Your task to perform on an android device: toggle priority inbox in the gmail app Image 0: 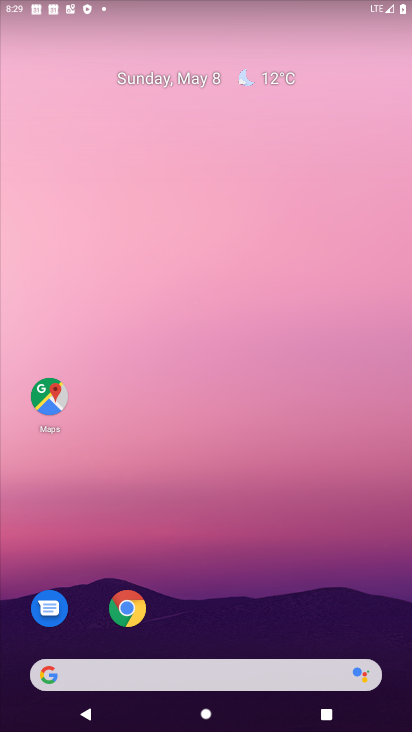
Step 0: drag from (295, 609) to (295, 176)
Your task to perform on an android device: toggle priority inbox in the gmail app Image 1: 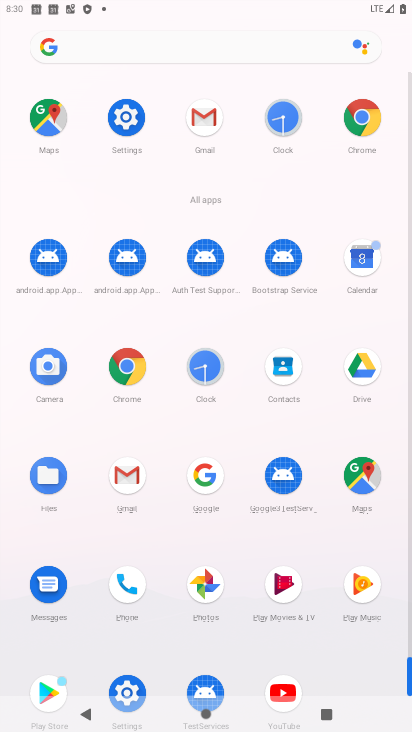
Step 1: click (134, 475)
Your task to perform on an android device: toggle priority inbox in the gmail app Image 2: 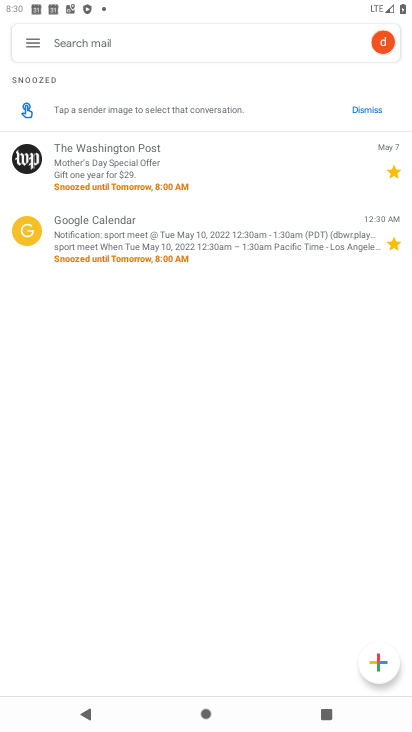
Step 2: click (28, 50)
Your task to perform on an android device: toggle priority inbox in the gmail app Image 3: 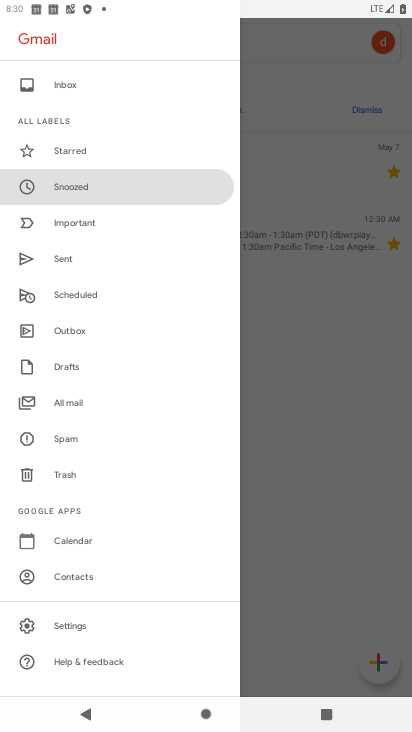
Step 3: drag from (168, 503) to (159, 162)
Your task to perform on an android device: toggle priority inbox in the gmail app Image 4: 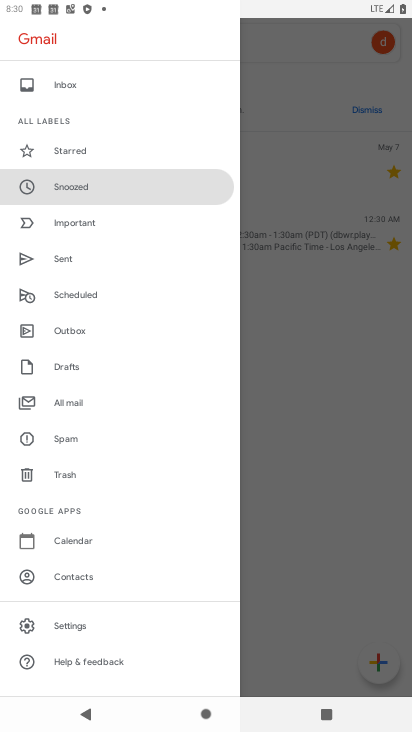
Step 4: click (81, 619)
Your task to perform on an android device: toggle priority inbox in the gmail app Image 5: 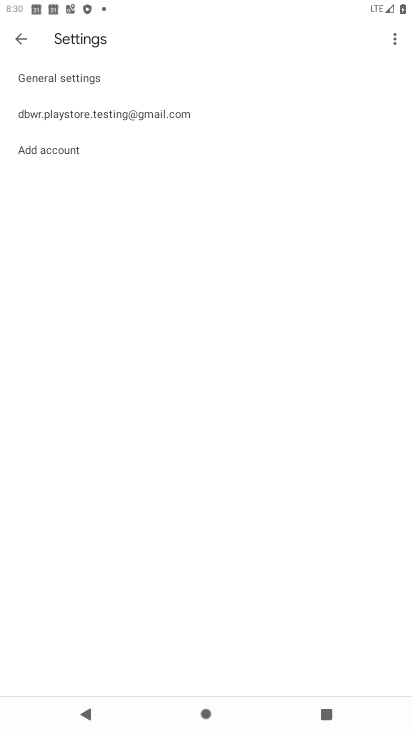
Step 5: click (100, 112)
Your task to perform on an android device: toggle priority inbox in the gmail app Image 6: 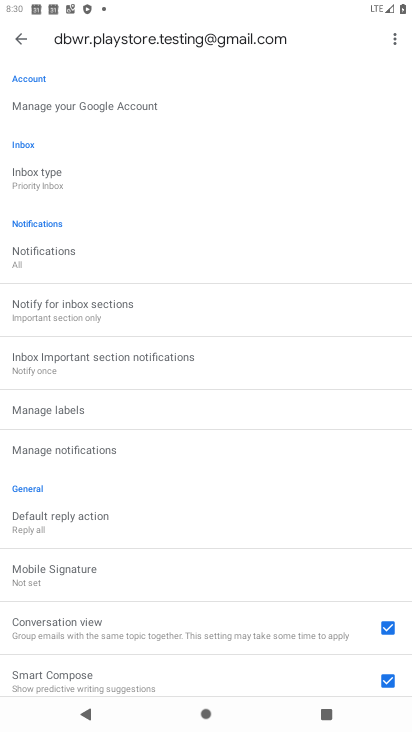
Step 6: click (46, 182)
Your task to perform on an android device: toggle priority inbox in the gmail app Image 7: 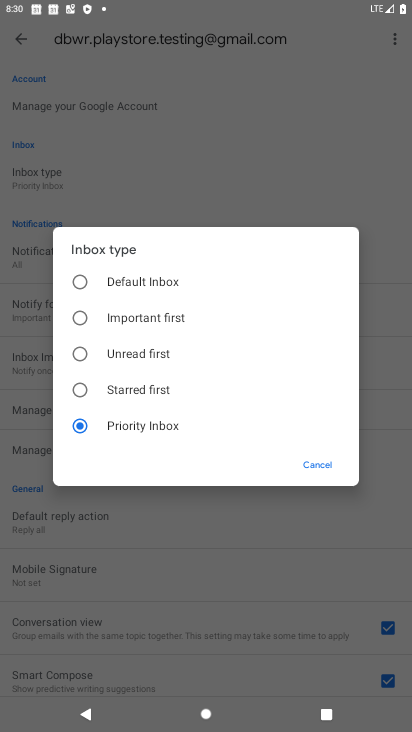
Step 7: click (113, 279)
Your task to perform on an android device: toggle priority inbox in the gmail app Image 8: 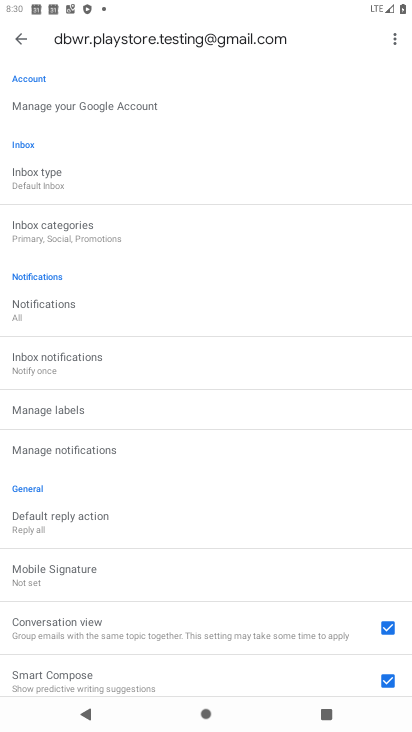
Step 8: task complete